Your task to perform on an android device: check battery use Image 0: 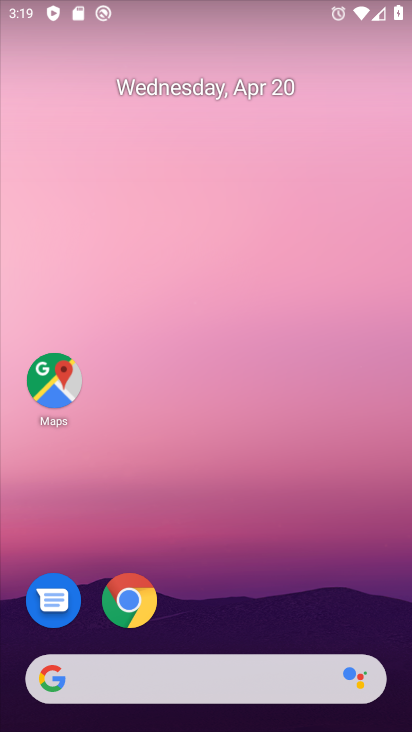
Step 0: drag from (290, 478) to (306, 195)
Your task to perform on an android device: check battery use Image 1: 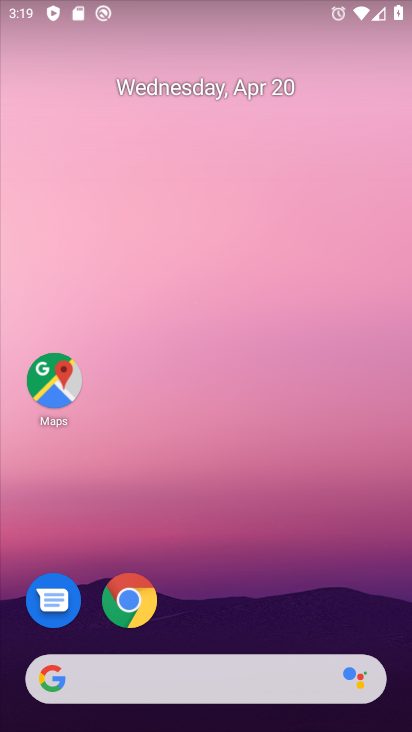
Step 1: drag from (264, 605) to (322, 217)
Your task to perform on an android device: check battery use Image 2: 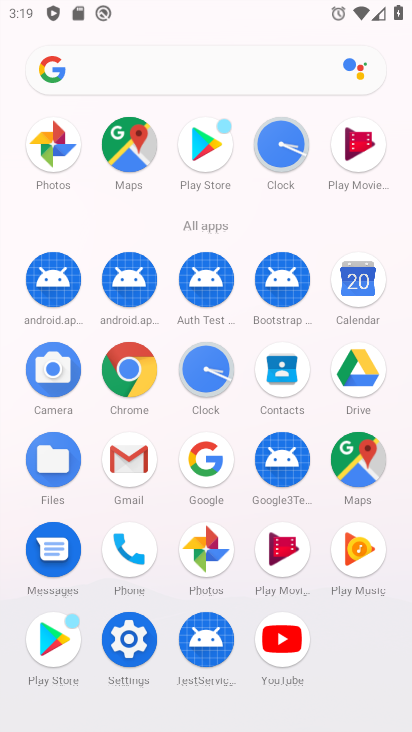
Step 2: click (133, 635)
Your task to perform on an android device: check battery use Image 3: 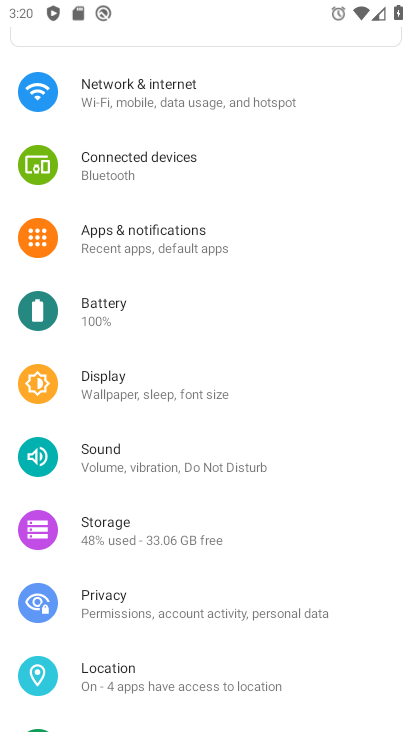
Step 3: click (125, 318)
Your task to perform on an android device: check battery use Image 4: 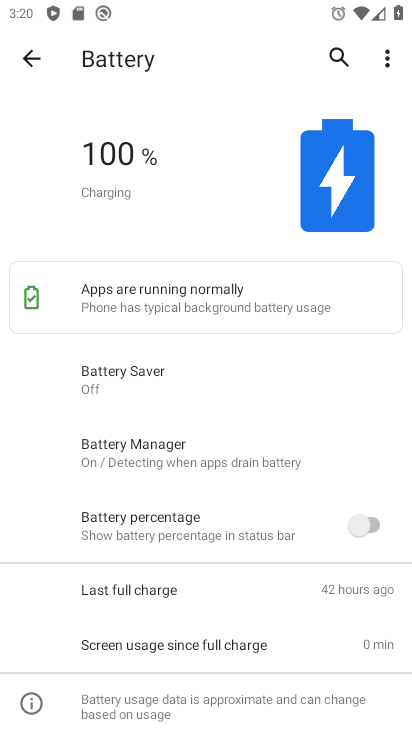
Step 4: task complete